Your task to perform on an android device: Go to Google maps Image 0: 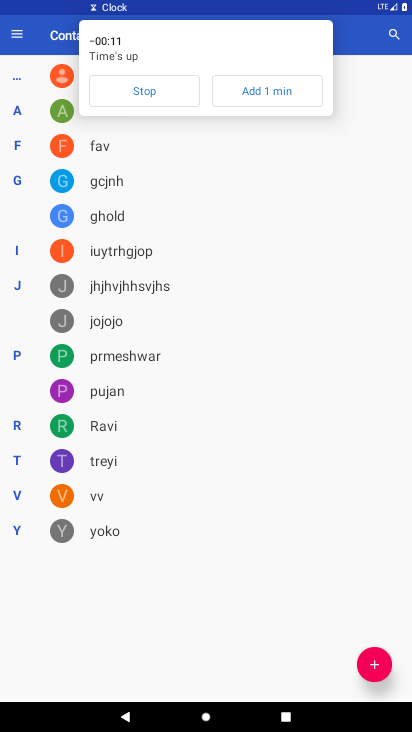
Step 0: press home button
Your task to perform on an android device: Go to Google maps Image 1: 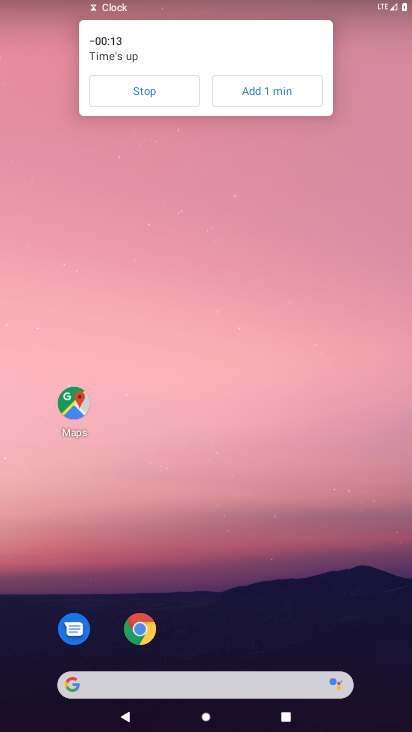
Step 1: click (141, 96)
Your task to perform on an android device: Go to Google maps Image 2: 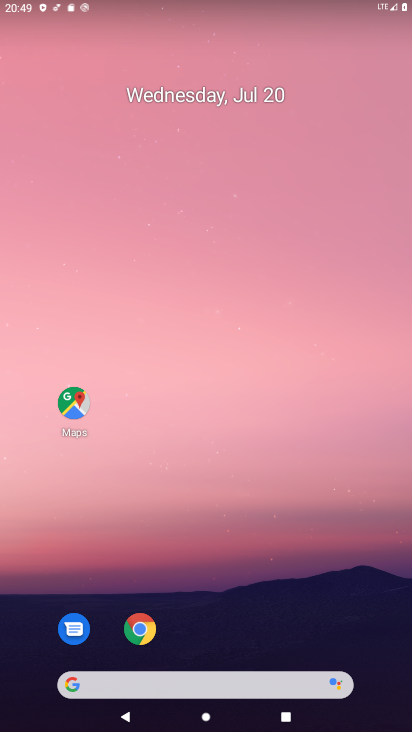
Step 2: click (87, 401)
Your task to perform on an android device: Go to Google maps Image 3: 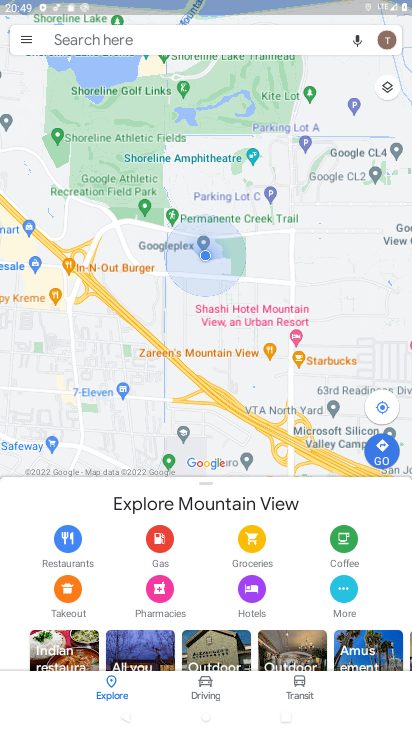
Step 3: task complete